Your task to perform on an android device: turn off improve location accuracy Image 0: 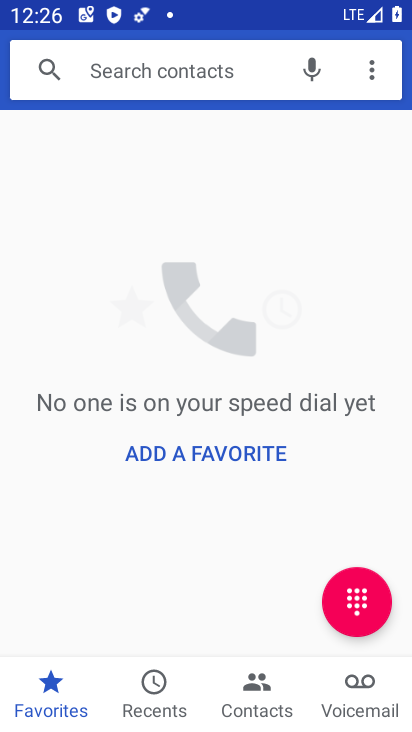
Step 0: press back button
Your task to perform on an android device: turn off improve location accuracy Image 1: 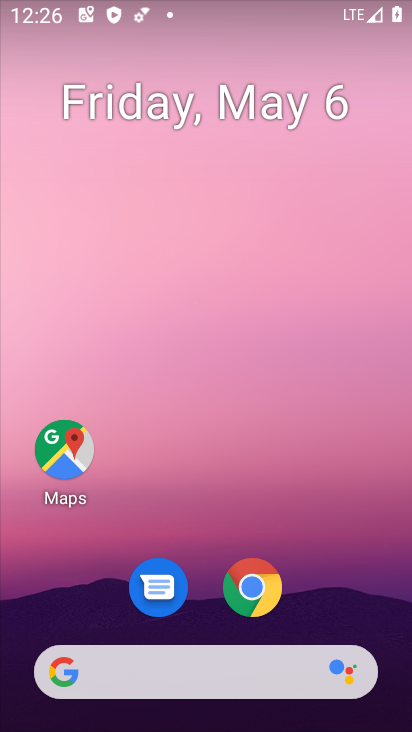
Step 1: drag from (187, 604) to (270, 61)
Your task to perform on an android device: turn off improve location accuracy Image 2: 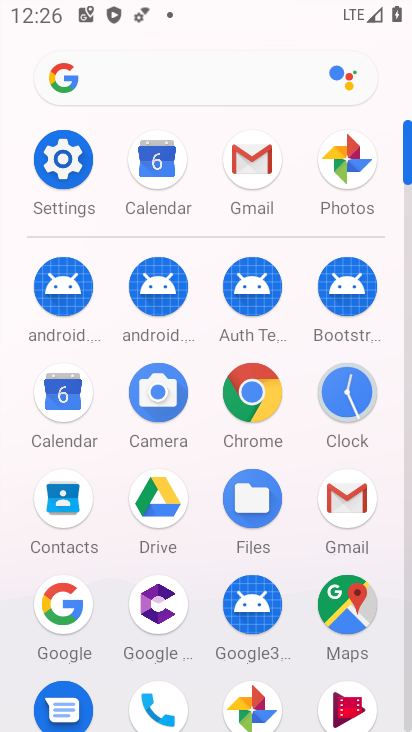
Step 2: click (58, 161)
Your task to perform on an android device: turn off improve location accuracy Image 3: 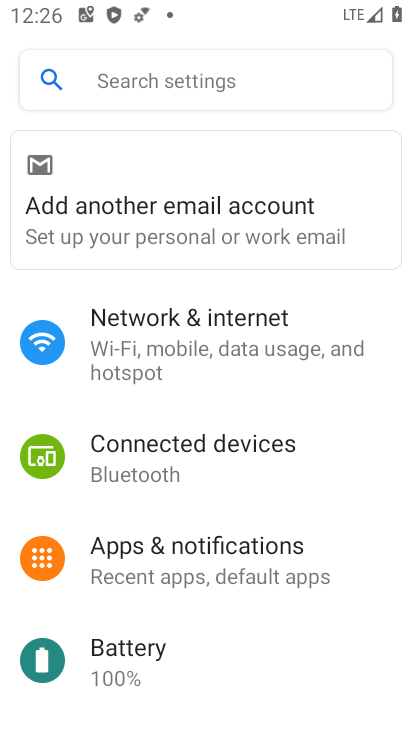
Step 3: drag from (148, 663) to (262, 154)
Your task to perform on an android device: turn off improve location accuracy Image 4: 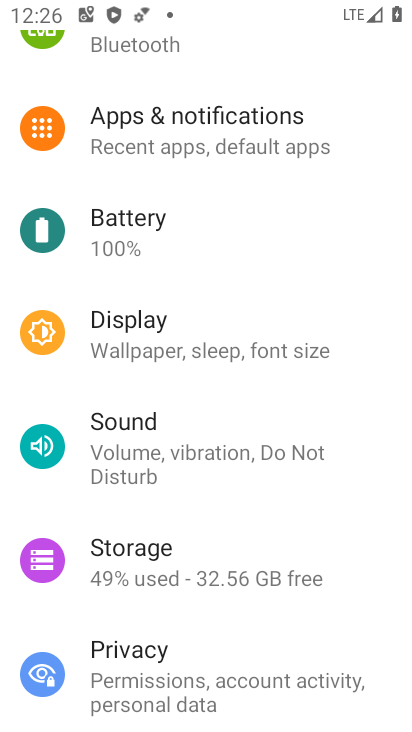
Step 4: drag from (168, 633) to (299, 65)
Your task to perform on an android device: turn off improve location accuracy Image 5: 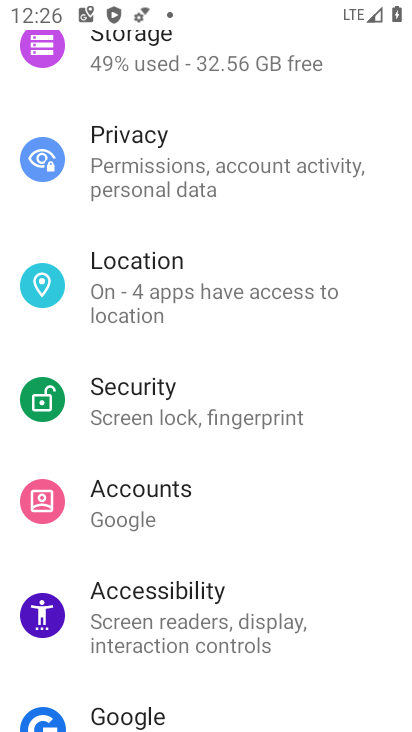
Step 5: click (132, 330)
Your task to perform on an android device: turn off improve location accuracy Image 6: 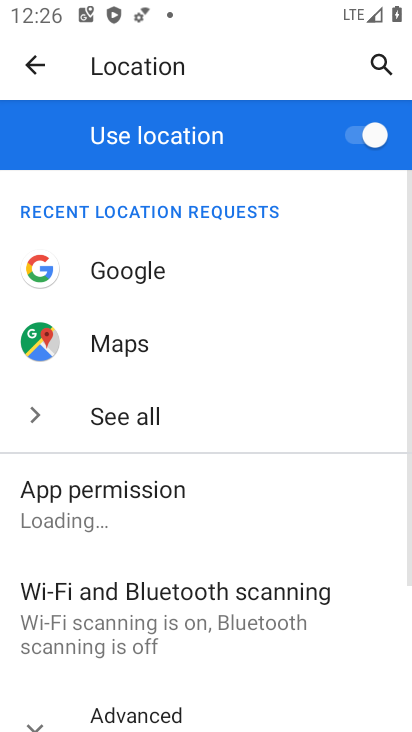
Step 6: drag from (183, 710) to (322, 218)
Your task to perform on an android device: turn off improve location accuracy Image 7: 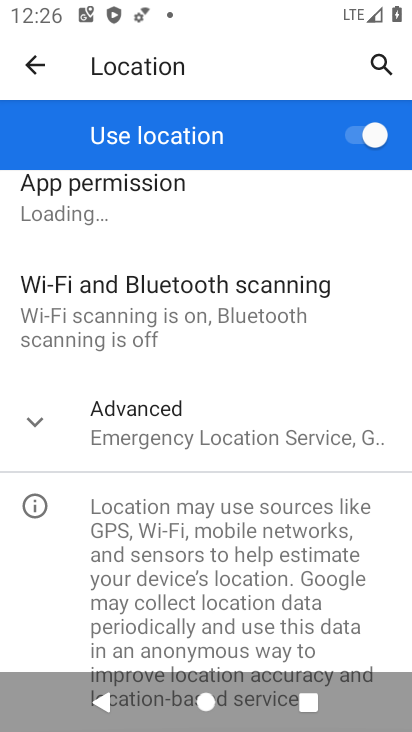
Step 7: click (119, 428)
Your task to perform on an android device: turn off improve location accuracy Image 8: 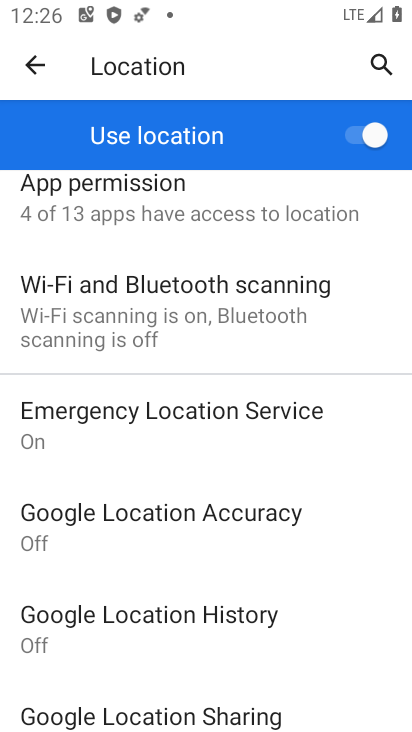
Step 8: drag from (197, 689) to (260, 427)
Your task to perform on an android device: turn off improve location accuracy Image 9: 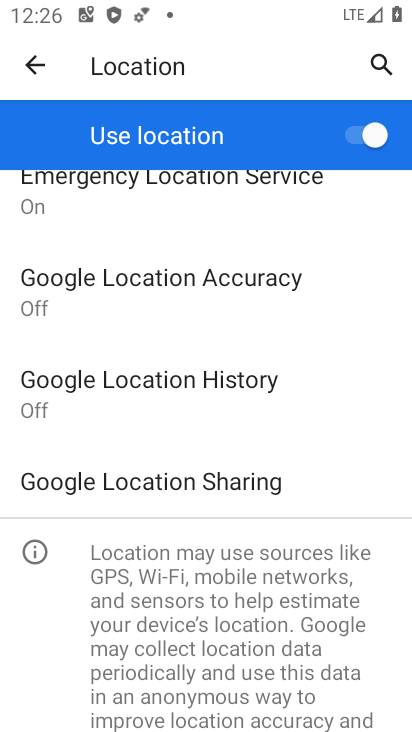
Step 9: click (135, 301)
Your task to perform on an android device: turn off improve location accuracy Image 10: 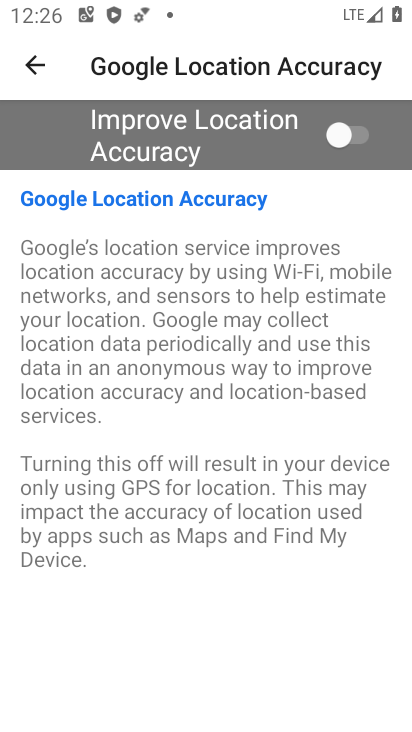
Step 10: task complete